Your task to perform on an android device: show emergency info Image 0: 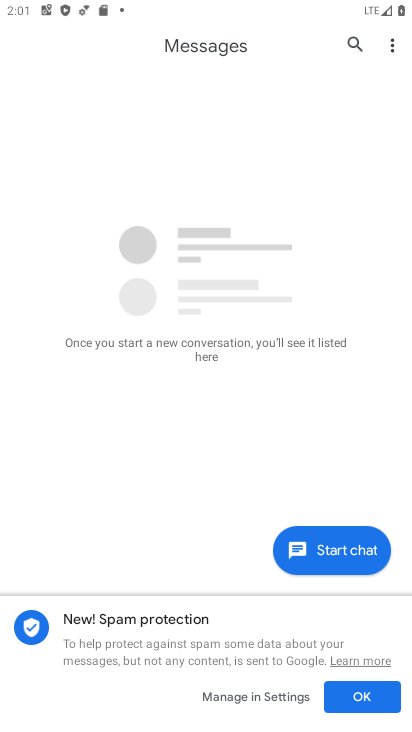
Step 0: press home button
Your task to perform on an android device: show emergency info Image 1: 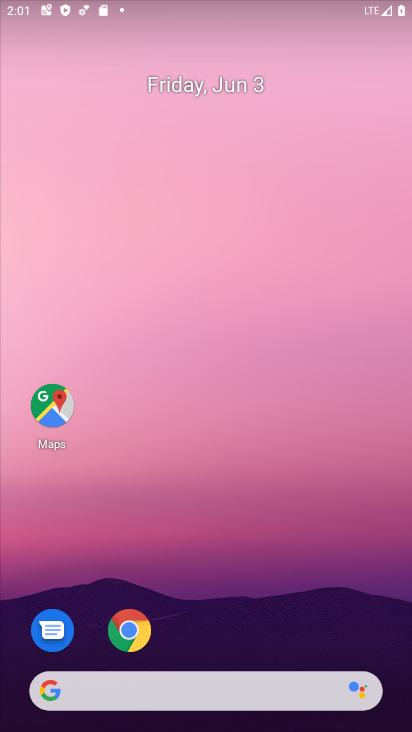
Step 1: drag from (227, 725) to (230, 123)
Your task to perform on an android device: show emergency info Image 2: 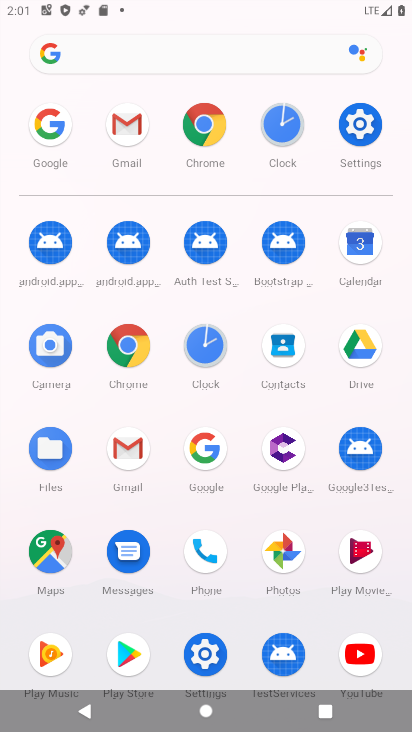
Step 2: click (363, 128)
Your task to perform on an android device: show emergency info Image 3: 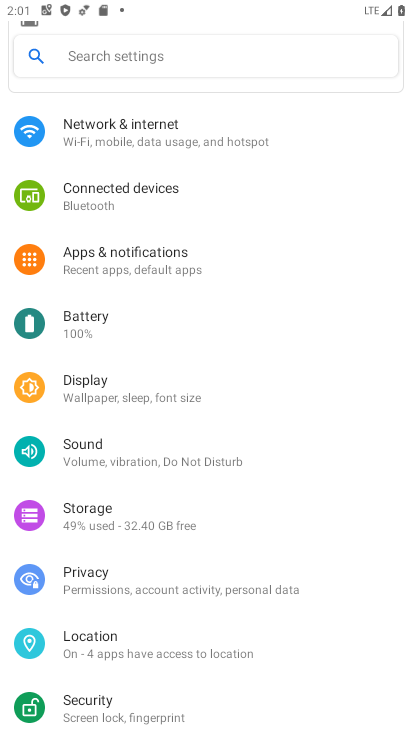
Step 3: drag from (177, 676) to (196, 189)
Your task to perform on an android device: show emergency info Image 4: 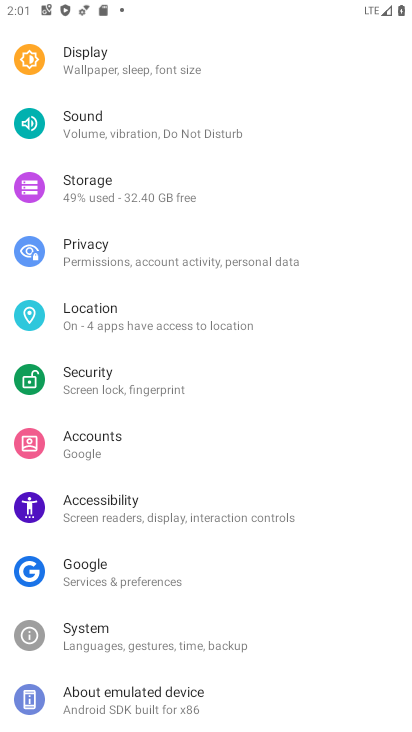
Step 4: drag from (199, 683) to (200, 231)
Your task to perform on an android device: show emergency info Image 5: 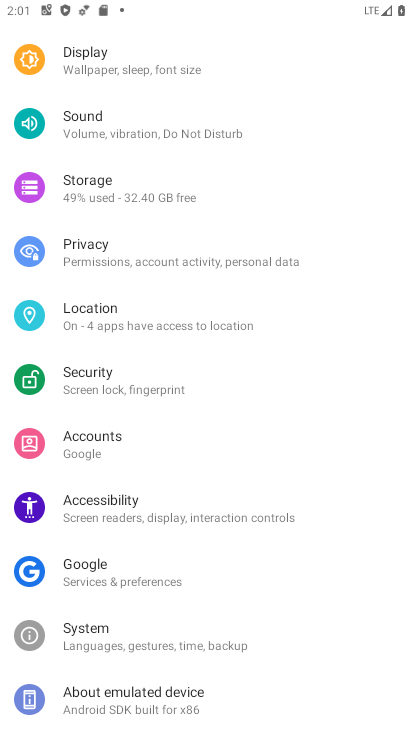
Step 5: click (129, 699)
Your task to perform on an android device: show emergency info Image 6: 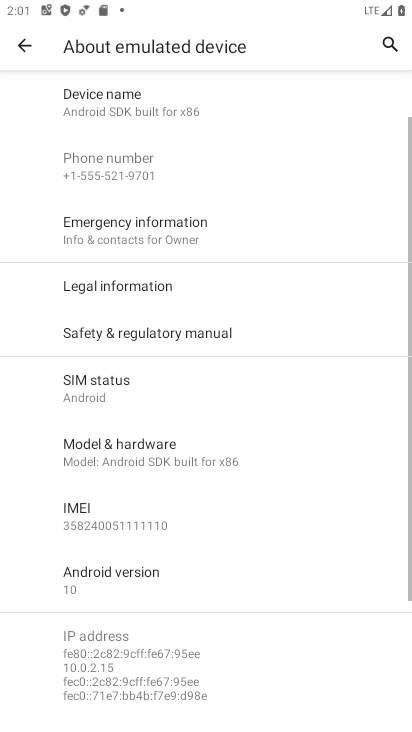
Step 6: click (142, 229)
Your task to perform on an android device: show emergency info Image 7: 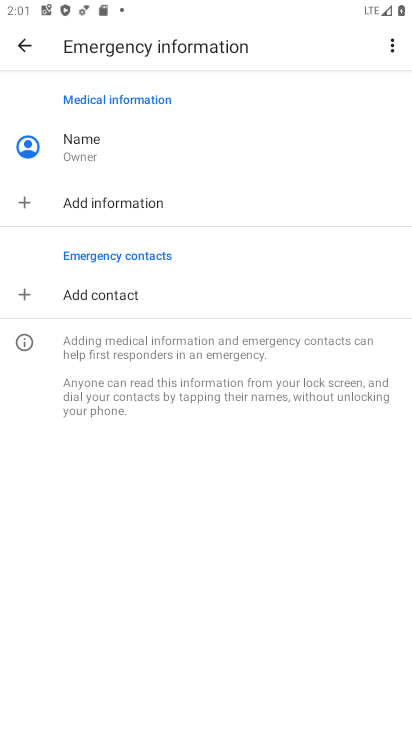
Step 7: task complete